Your task to perform on an android device: turn off javascript in the chrome app Image 0: 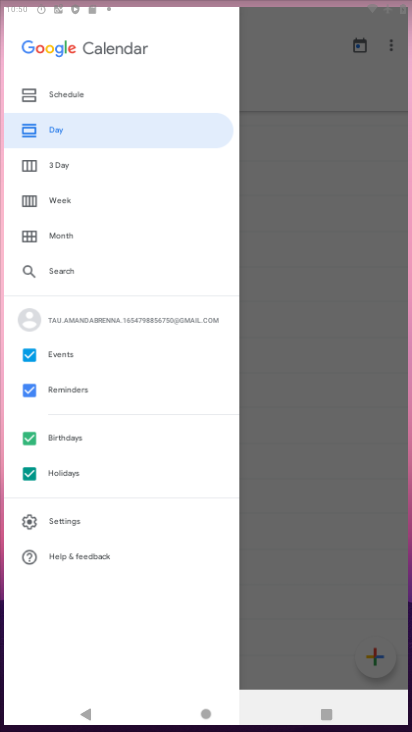
Step 0: drag from (225, 609) to (233, 113)
Your task to perform on an android device: turn off javascript in the chrome app Image 1: 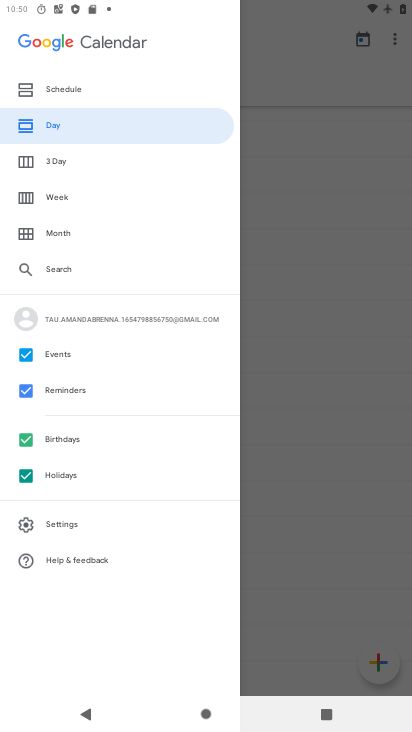
Step 1: press home button
Your task to perform on an android device: turn off javascript in the chrome app Image 2: 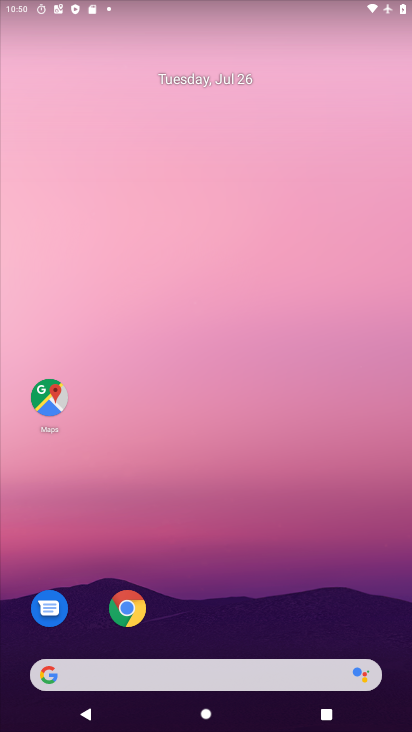
Step 2: click (128, 614)
Your task to perform on an android device: turn off javascript in the chrome app Image 3: 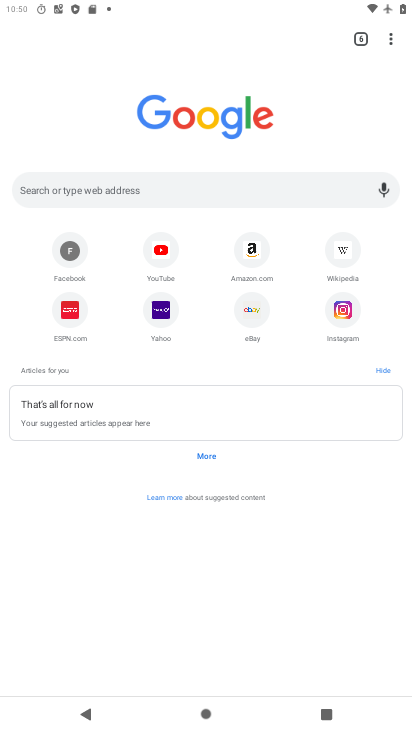
Step 3: click (397, 37)
Your task to perform on an android device: turn off javascript in the chrome app Image 4: 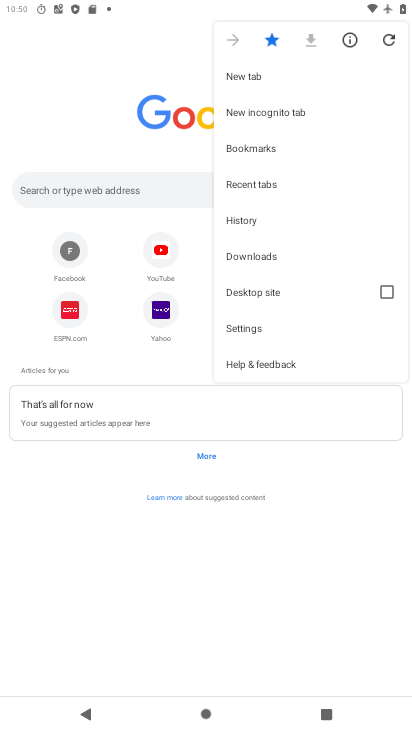
Step 4: click (295, 328)
Your task to perform on an android device: turn off javascript in the chrome app Image 5: 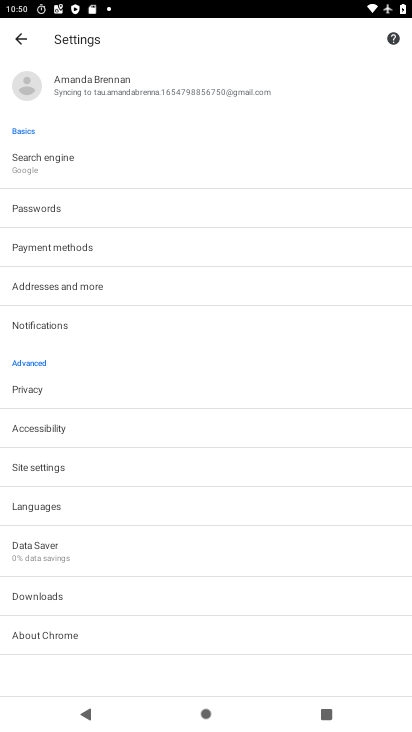
Step 5: click (80, 465)
Your task to perform on an android device: turn off javascript in the chrome app Image 6: 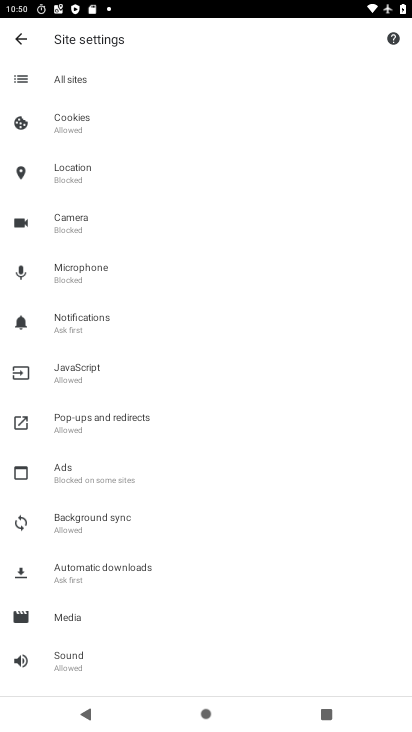
Step 6: click (82, 380)
Your task to perform on an android device: turn off javascript in the chrome app Image 7: 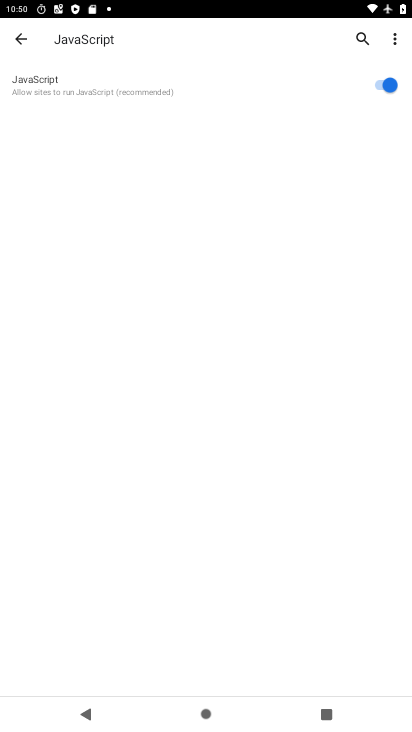
Step 7: click (373, 82)
Your task to perform on an android device: turn off javascript in the chrome app Image 8: 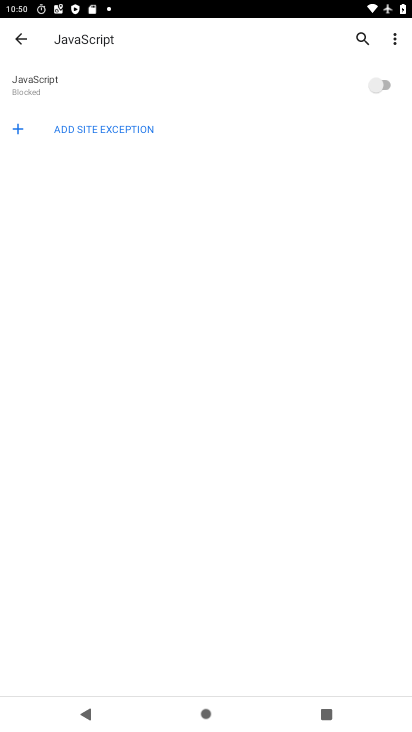
Step 8: task complete